Your task to perform on an android device: Open location settings Image 0: 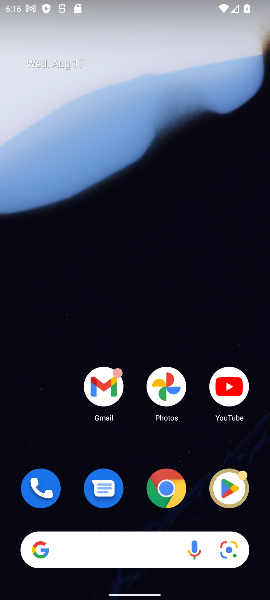
Step 0: drag from (146, 475) to (26, 148)
Your task to perform on an android device: Open location settings Image 1: 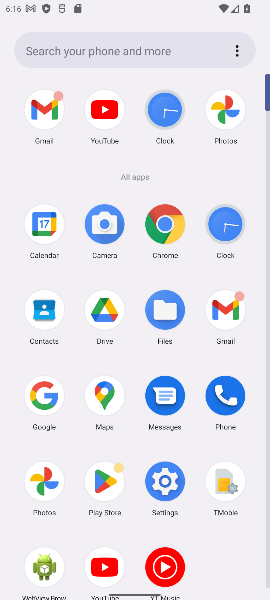
Step 1: click (172, 479)
Your task to perform on an android device: Open location settings Image 2: 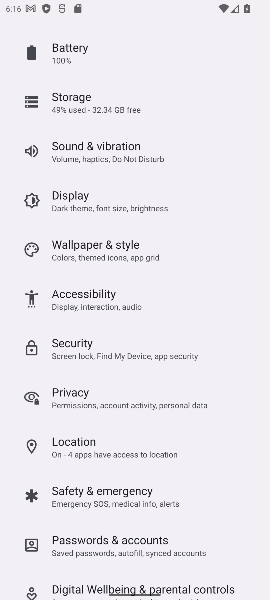
Step 2: click (72, 448)
Your task to perform on an android device: Open location settings Image 3: 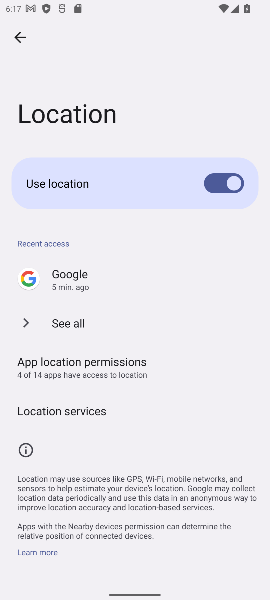
Step 3: task complete